Your task to perform on an android device: clear history in the chrome app Image 0: 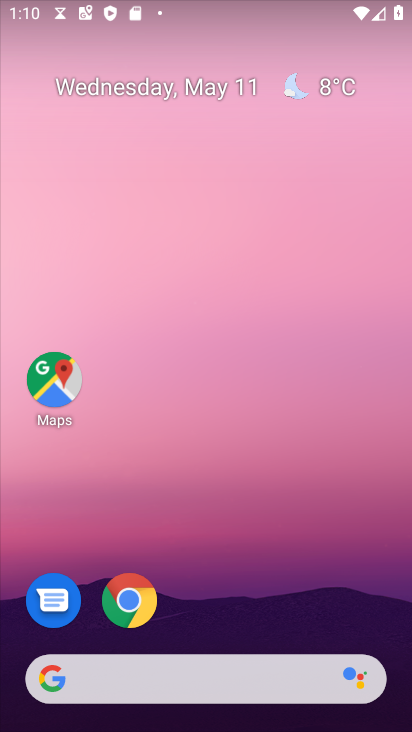
Step 0: click (149, 602)
Your task to perform on an android device: clear history in the chrome app Image 1: 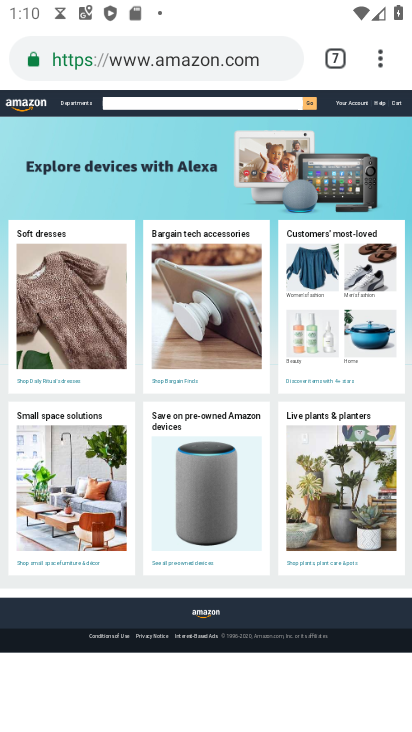
Step 1: click (380, 52)
Your task to perform on an android device: clear history in the chrome app Image 2: 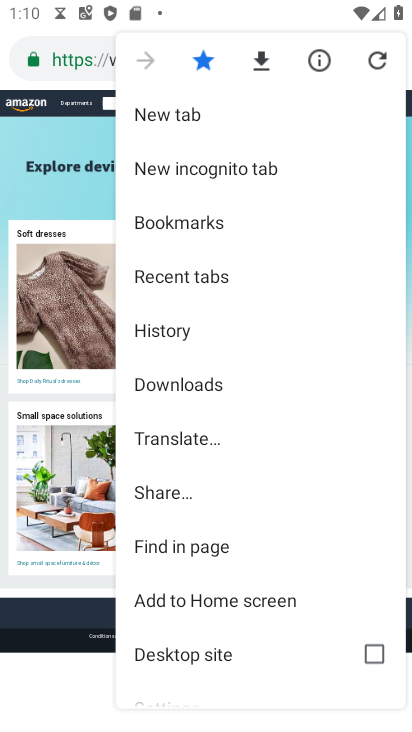
Step 2: click (193, 329)
Your task to perform on an android device: clear history in the chrome app Image 3: 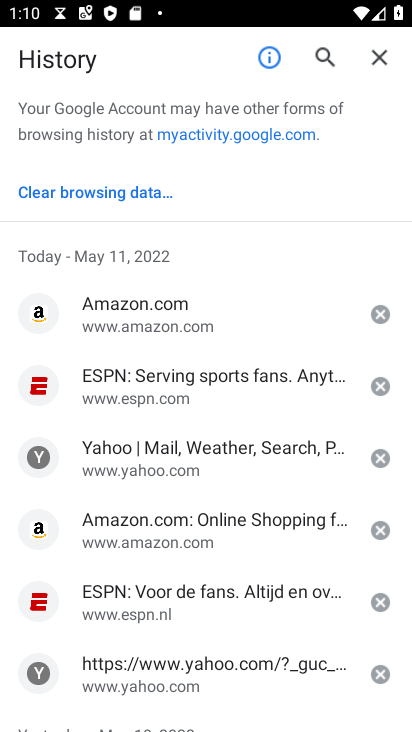
Step 3: click (108, 184)
Your task to perform on an android device: clear history in the chrome app Image 4: 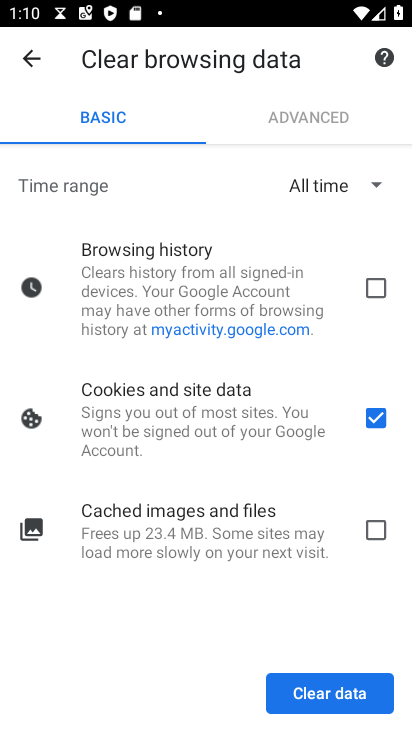
Step 4: click (361, 684)
Your task to perform on an android device: clear history in the chrome app Image 5: 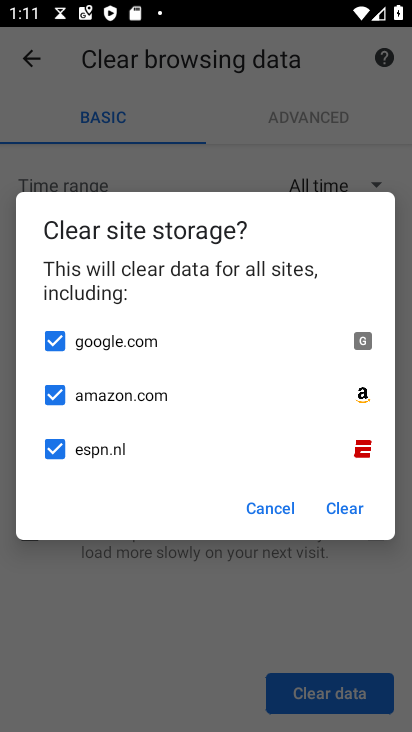
Step 5: click (340, 514)
Your task to perform on an android device: clear history in the chrome app Image 6: 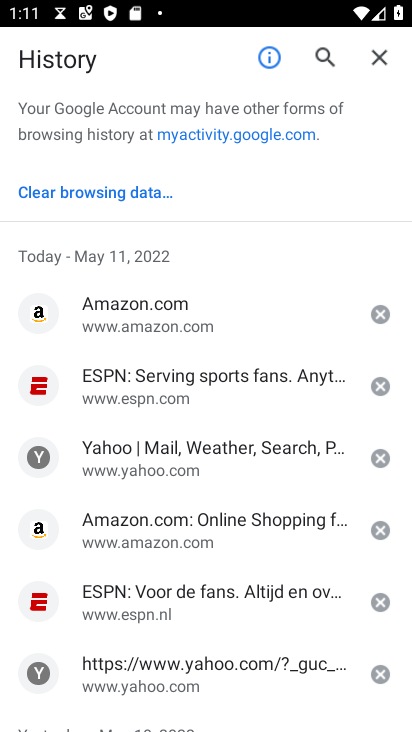
Step 6: task complete